Your task to perform on an android device: allow notifications from all sites in the chrome app Image 0: 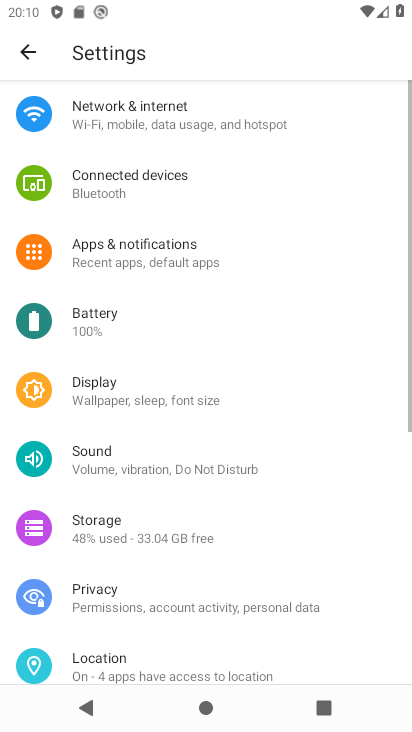
Step 0: press home button
Your task to perform on an android device: allow notifications from all sites in the chrome app Image 1: 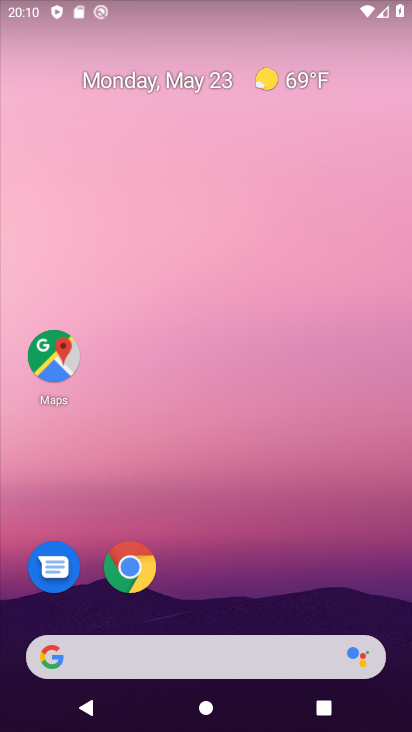
Step 1: click (130, 575)
Your task to perform on an android device: allow notifications from all sites in the chrome app Image 2: 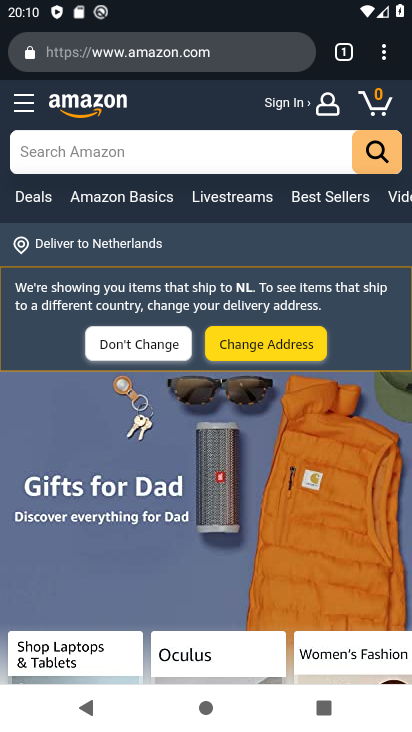
Step 2: click (383, 52)
Your task to perform on an android device: allow notifications from all sites in the chrome app Image 3: 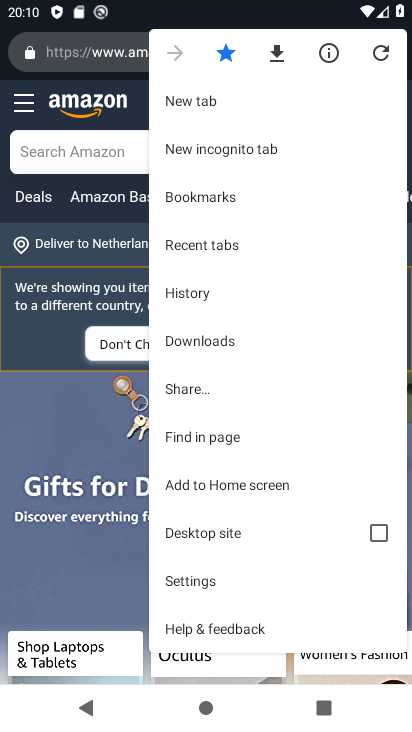
Step 3: click (203, 587)
Your task to perform on an android device: allow notifications from all sites in the chrome app Image 4: 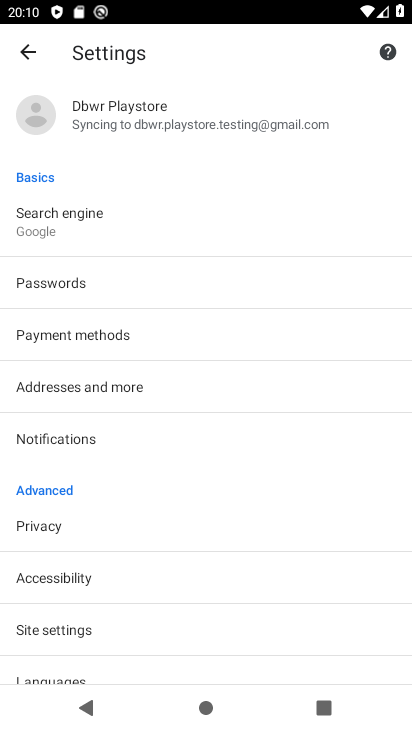
Step 4: click (84, 447)
Your task to perform on an android device: allow notifications from all sites in the chrome app Image 5: 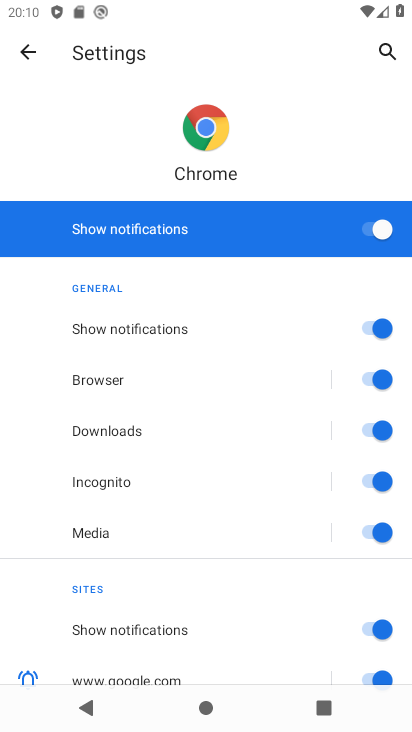
Step 5: task complete